Your task to perform on an android device: Open Yahoo.com Image 0: 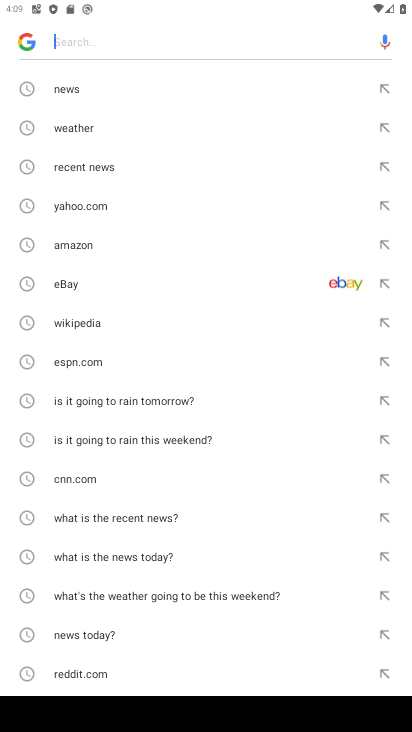
Step 0: click (73, 210)
Your task to perform on an android device: Open Yahoo.com Image 1: 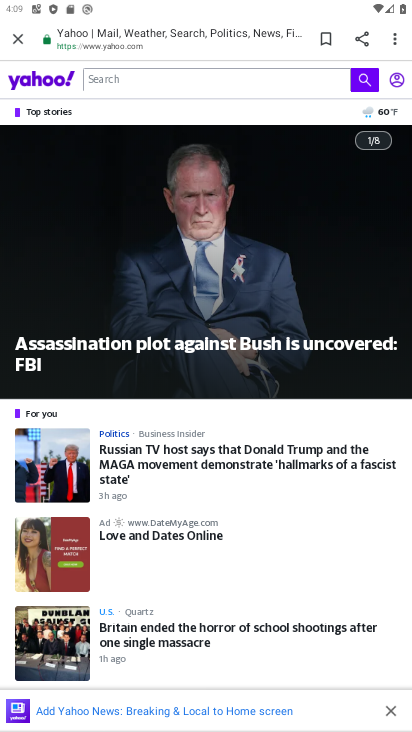
Step 1: task complete